Your task to perform on an android device: Open the map Image 0: 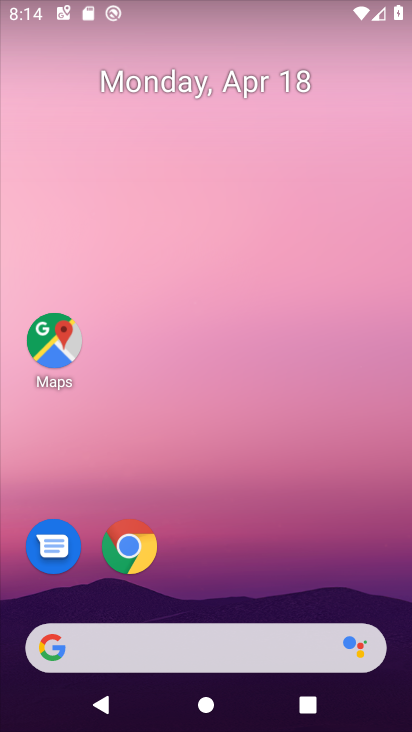
Step 0: drag from (387, 546) to (290, 123)
Your task to perform on an android device: Open the map Image 1: 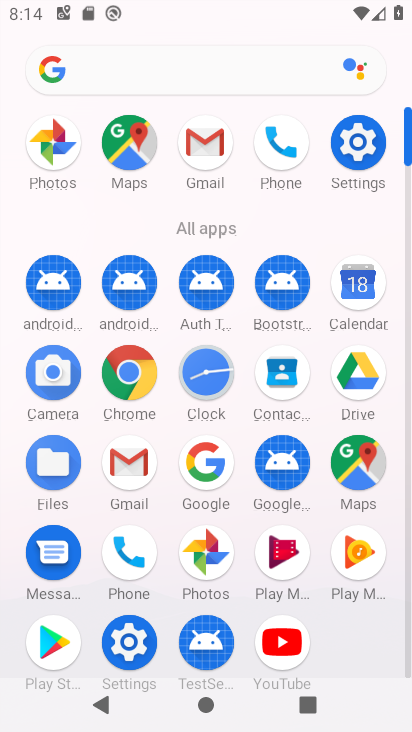
Step 1: click (353, 441)
Your task to perform on an android device: Open the map Image 2: 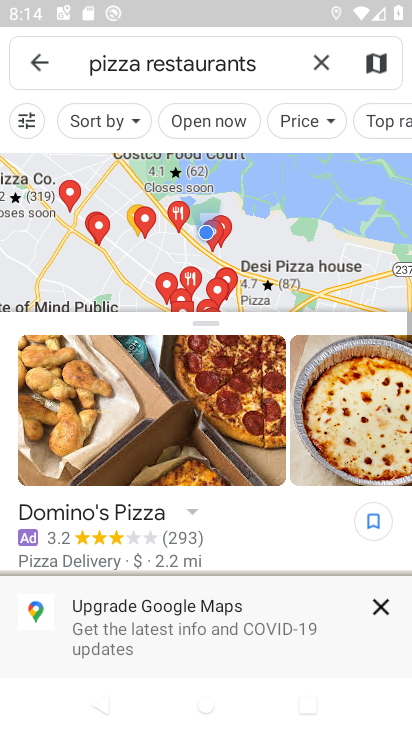
Step 2: task complete